Your task to perform on an android device: Search for pizza restaurants on Maps Image 0: 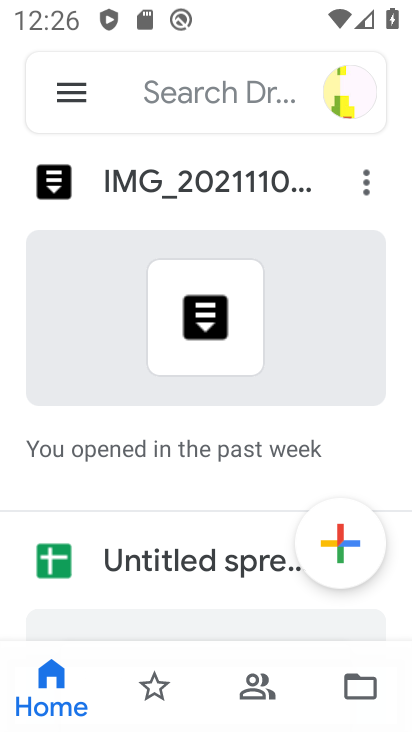
Step 0: press home button
Your task to perform on an android device: Search for pizza restaurants on Maps Image 1: 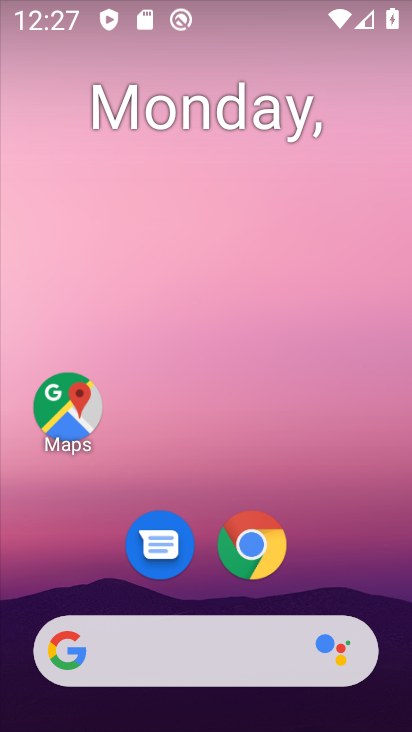
Step 1: click (61, 408)
Your task to perform on an android device: Search for pizza restaurants on Maps Image 2: 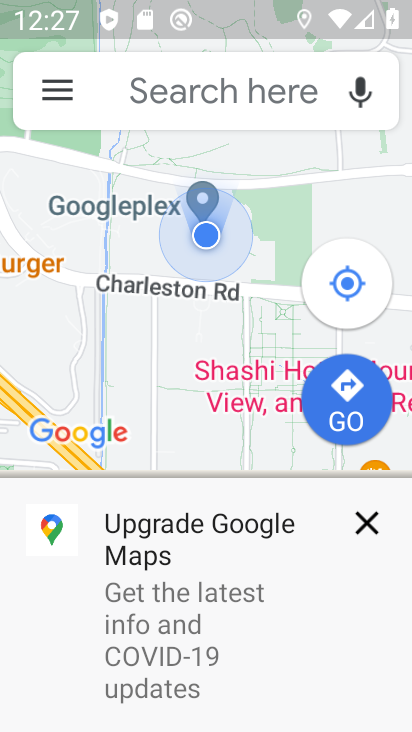
Step 2: click (175, 84)
Your task to perform on an android device: Search for pizza restaurants on Maps Image 3: 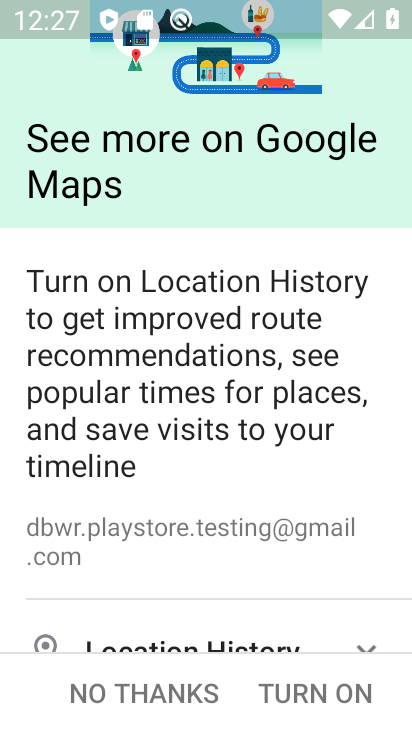
Step 3: click (165, 687)
Your task to perform on an android device: Search for pizza restaurants on Maps Image 4: 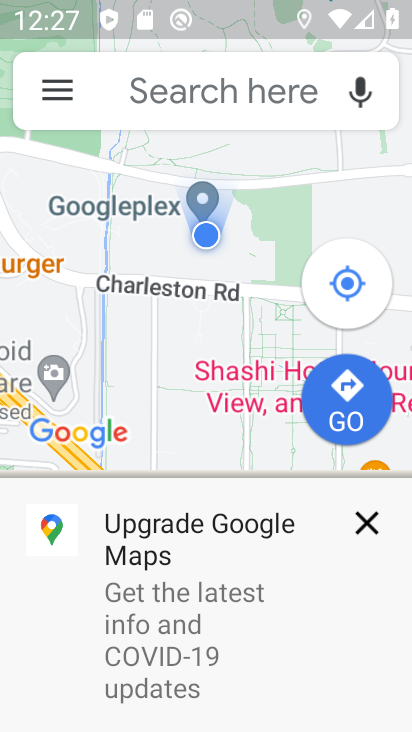
Step 4: click (207, 99)
Your task to perform on an android device: Search for pizza restaurants on Maps Image 5: 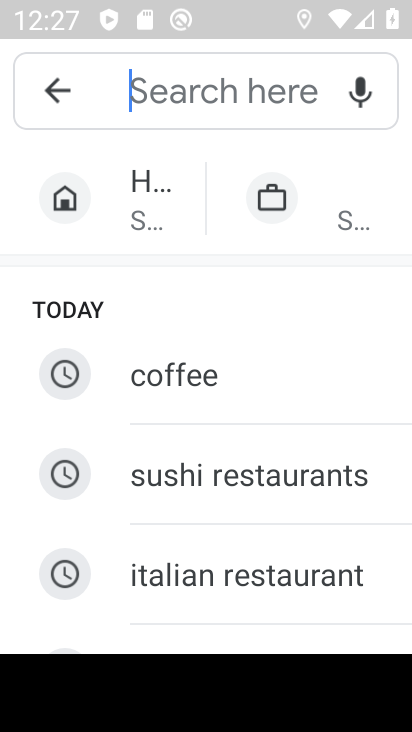
Step 5: type "pizza restaurants"
Your task to perform on an android device: Search for pizza restaurants on Maps Image 6: 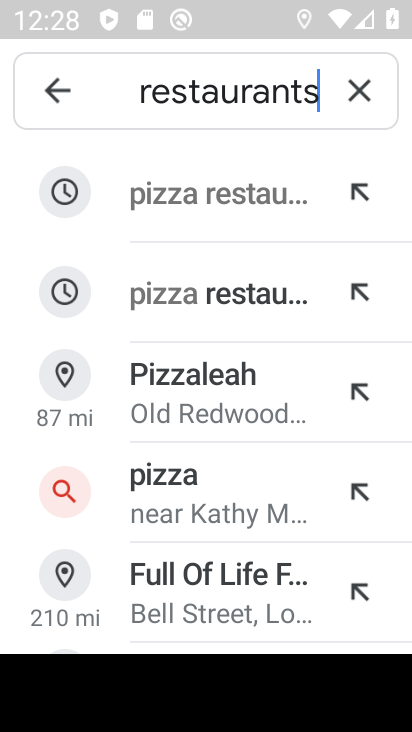
Step 6: click (236, 291)
Your task to perform on an android device: Search for pizza restaurants on Maps Image 7: 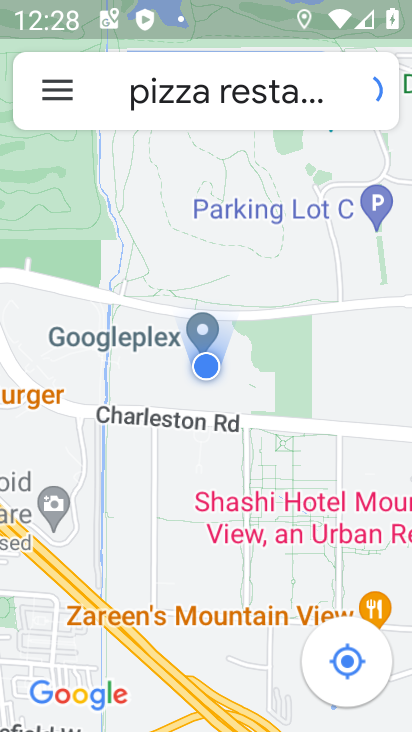
Step 7: click (236, 291)
Your task to perform on an android device: Search for pizza restaurants on Maps Image 8: 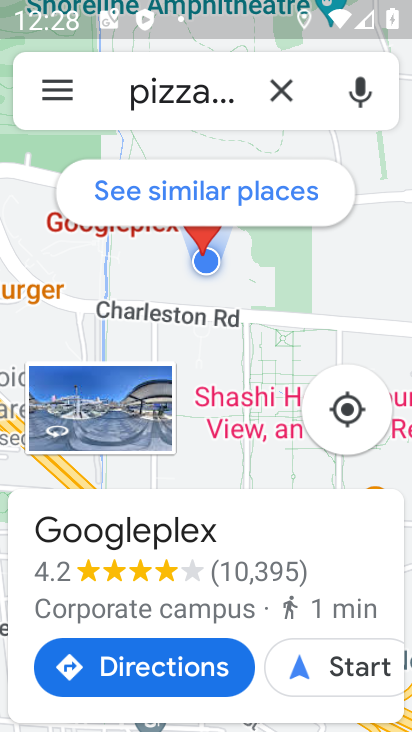
Step 8: task complete